Your task to perform on an android device: toggle sleep mode Image 0: 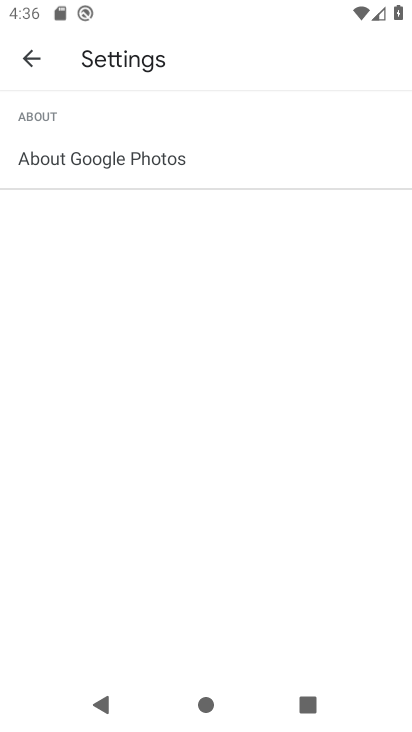
Step 0: press back button
Your task to perform on an android device: toggle sleep mode Image 1: 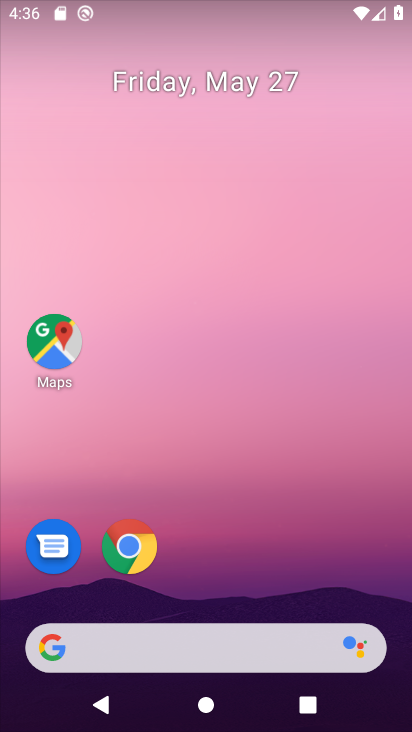
Step 1: drag from (242, 542) to (180, 22)
Your task to perform on an android device: toggle sleep mode Image 2: 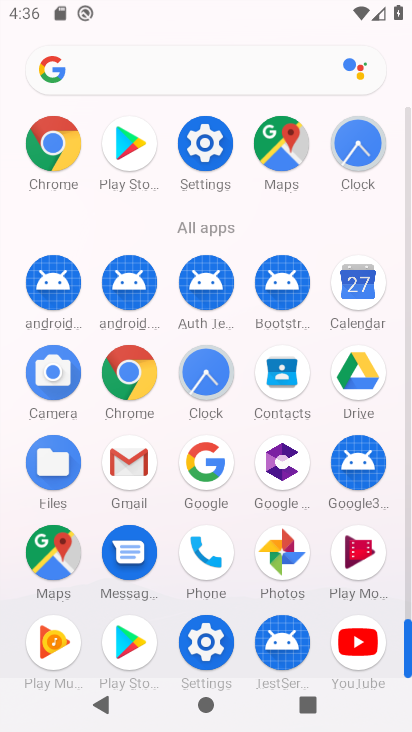
Step 2: click (204, 142)
Your task to perform on an android device: toggle sleep mode Image 3: 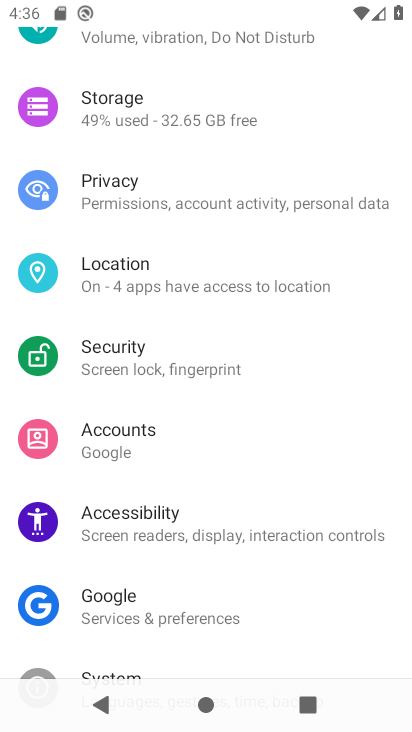
Step 3: drag from (264, 92) to (281, 447)
Your task to perform on an android device: toggle sleep mode Image 4: 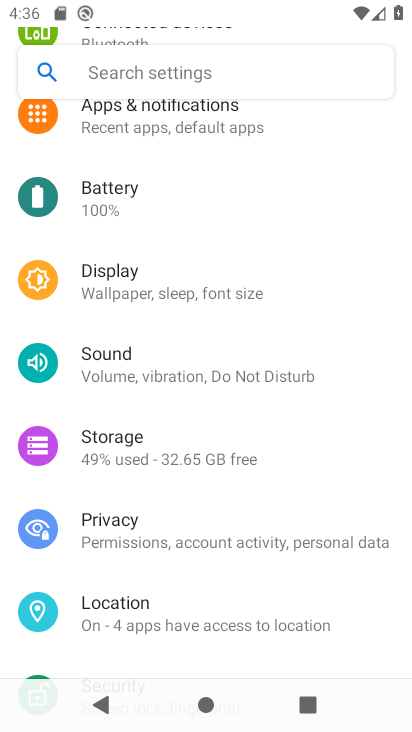
Step 4: drag from (264, 238) to (263, 604)
Your task to perform on an android device: toggle sleep mode Image 5: 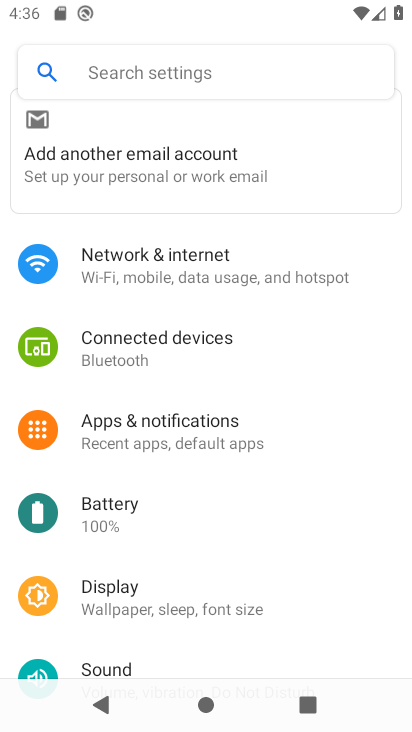
Step 5: click (227, 250)
Your task to perform on an android device: toggle sleep mode Image 6: 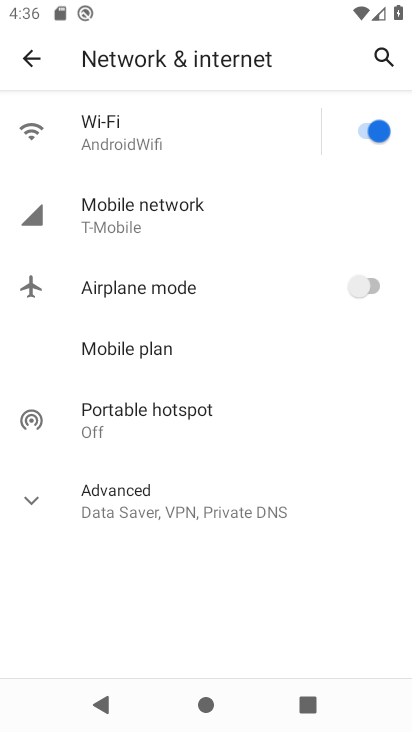
Step 6: click (23, 507)
Your task to perform on an android device: toggle sleep mode Image 7: 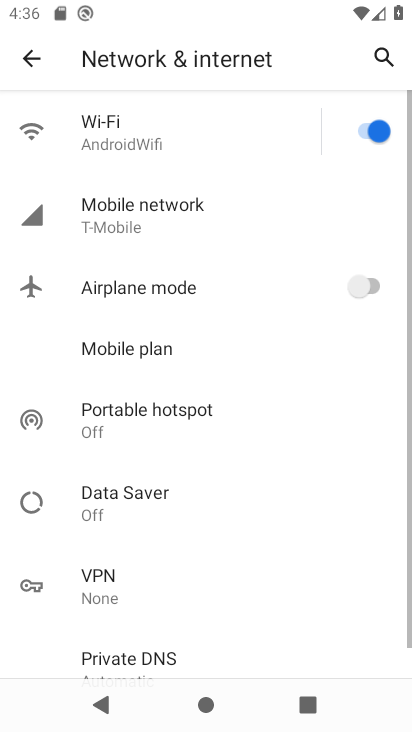
Step 7: click (35, 47)
Your task to perform on an android device: toggle sleep mode Image 8: 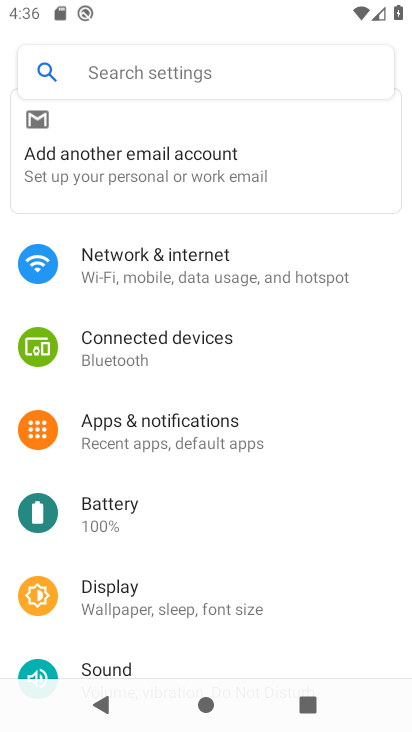
Step 8: click (181, 590)
Your task to perform on an android device: toggle sleep mode Image 9: 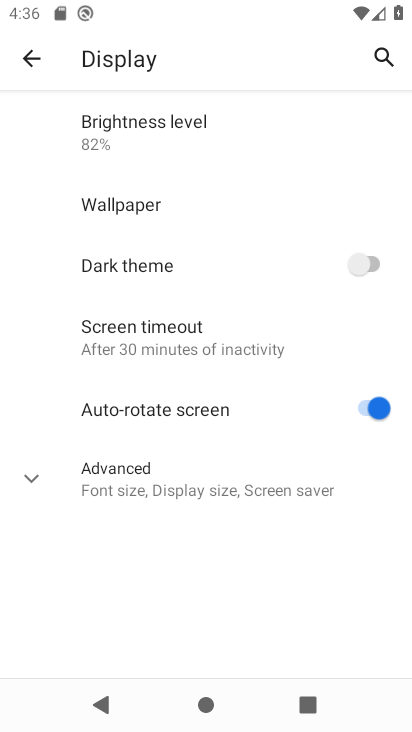
Step 9: click (39, 475)
Your task to perform on an android device: toggle sleep mode Image 10: 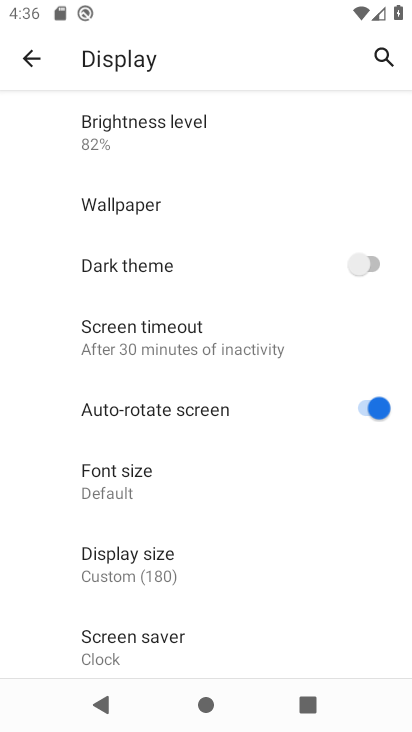
Step 10: task complete